Your task to perform on an android device: What is the recent news? Image 0: 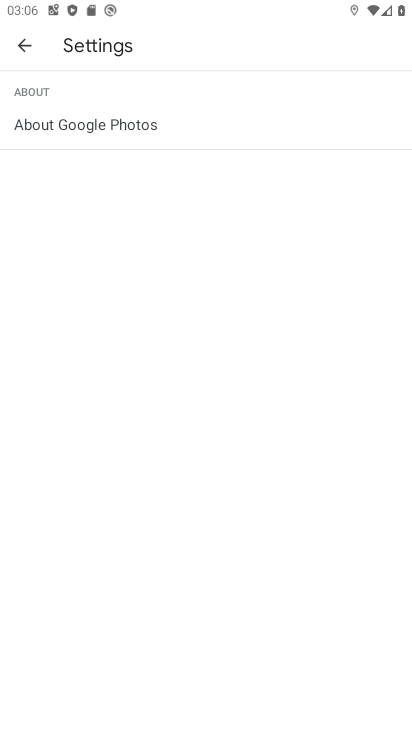
Step 0: drag from (247, 672) to (188, 331)
Your task to perform on an android device: What is the recent news? Image 1: 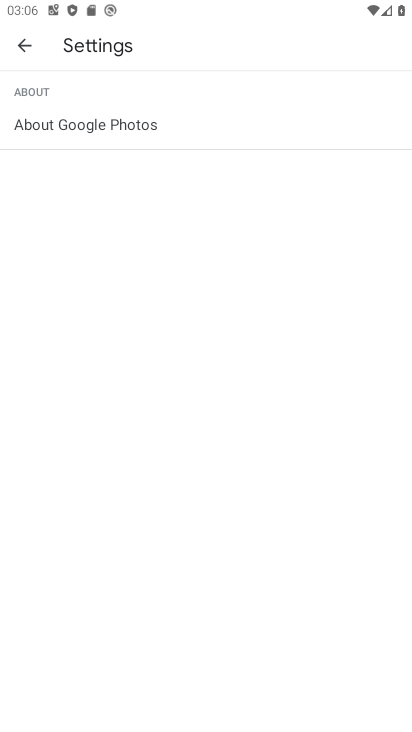
Step 1: click (25, 49)
Your task to perform on an android device: What is the recent news? Image 2: 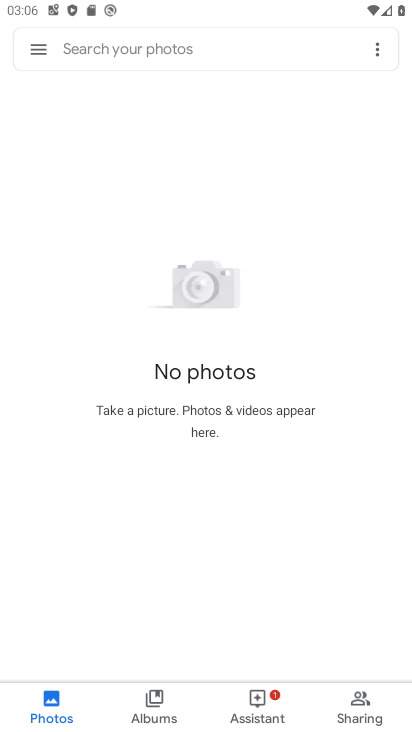
Step 2: press back button
Your task to perform on an android device: What is the recent news? Image 3: 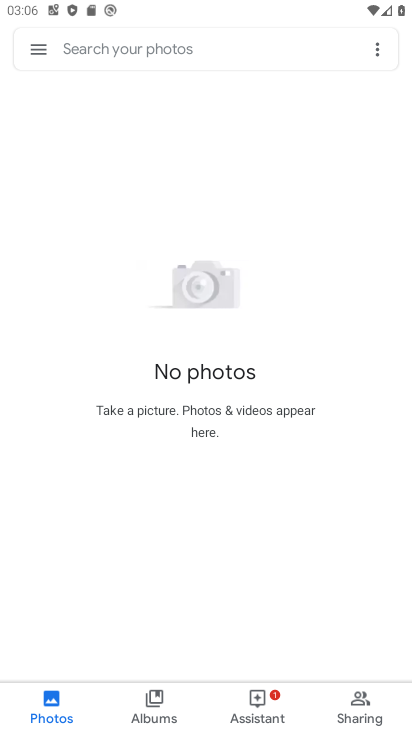
Step 3: press back button
Your task to perform on an android device: What is the recent news? Image 4: 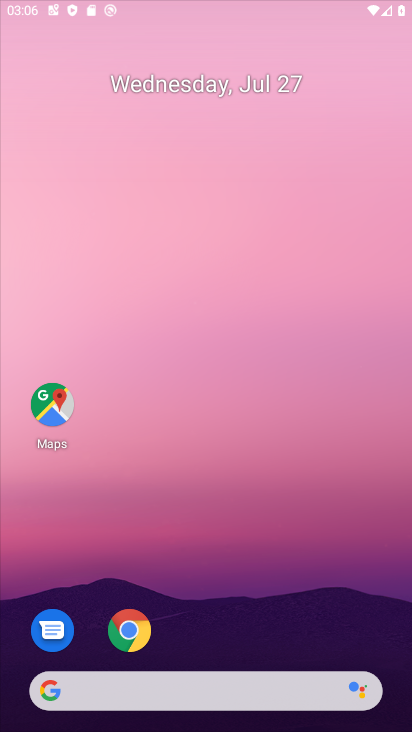
Step 4: press back button
Your task to perform on an android device: What is the recent news? Image 5: 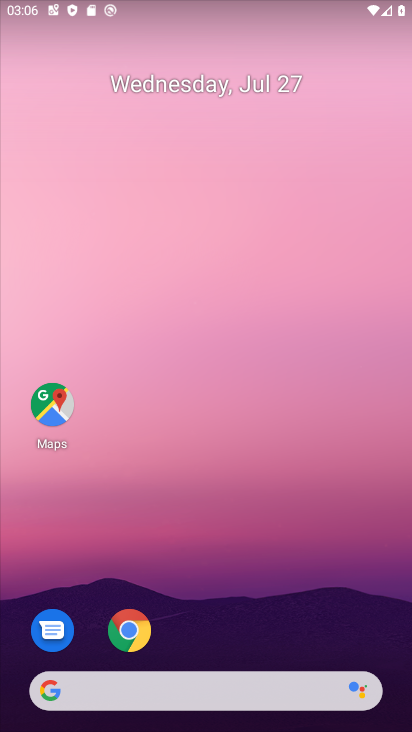
Step 5: click (80, 253)
Your task to perform on an android device: What is the recent news? Image 6: 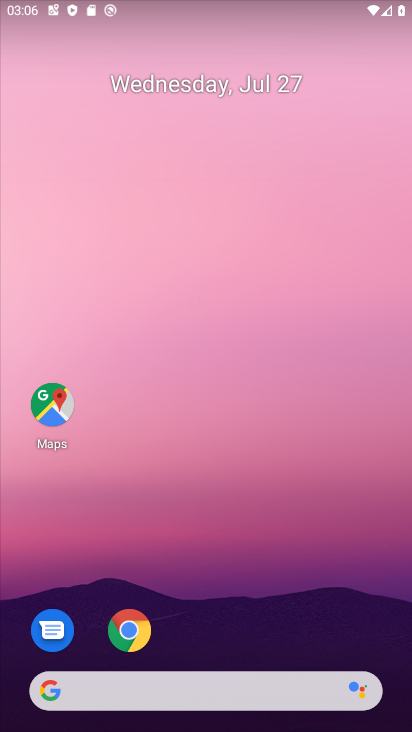
Step 6: drag from (227, 588) to (164, 175)
Your task to perform on an android device: What is the recent news? Image 7: 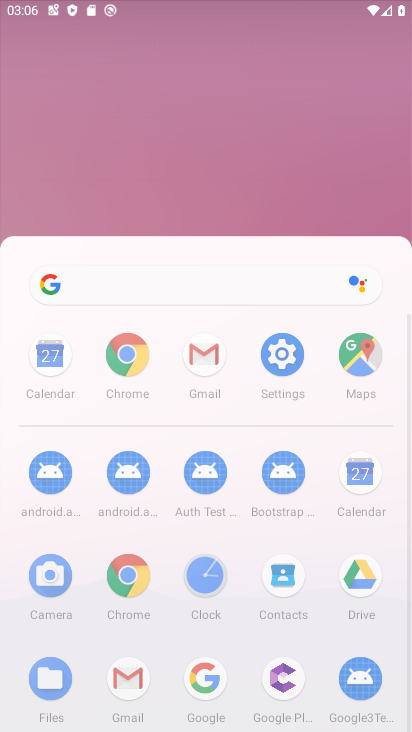
Step 7: drag from (242, 552) to (210, 255)
Your task to perform on an android device: What is the recent news? Image 8: 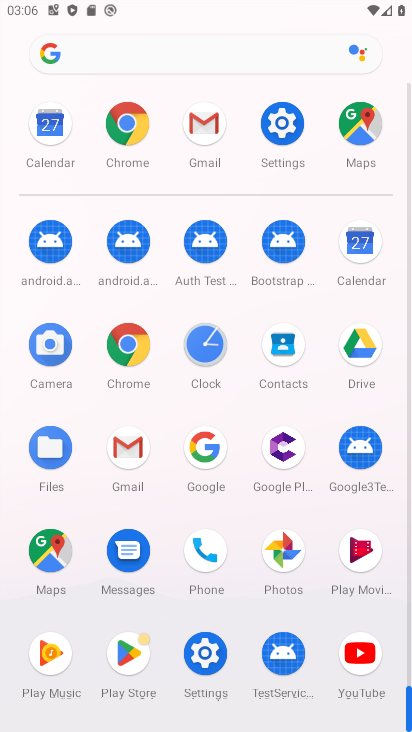
Step 8: drag from (243, 490) to (201, 133)
Your task to perform on an android device: What is the recent news? Image 9: 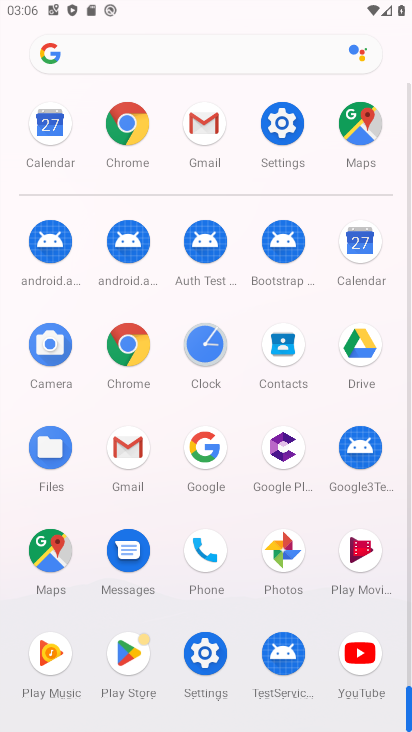
Step 9: click (118, 139)
Your task to perform on an android device: What is the recent news? Image 10: 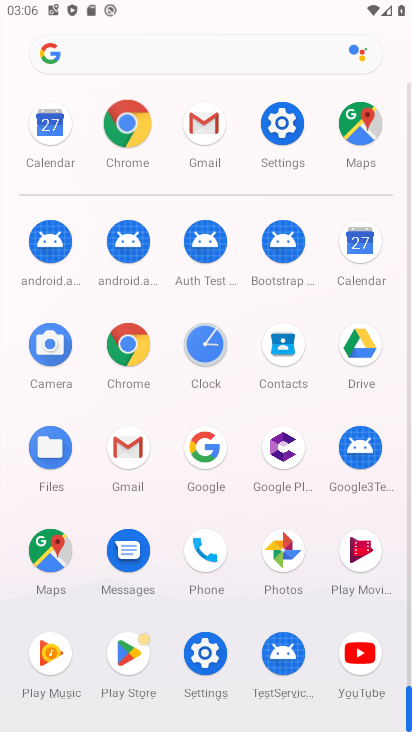
Step 10: click (122, 136)
Your task to perform on an android device: What is the recent news? Image 11: 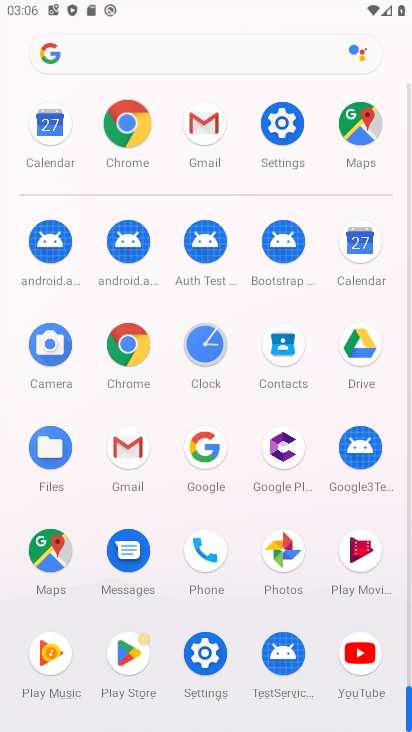
Step 11: click (135, 129)
Your task to perform on an android device: What is the recent news? Image 12: 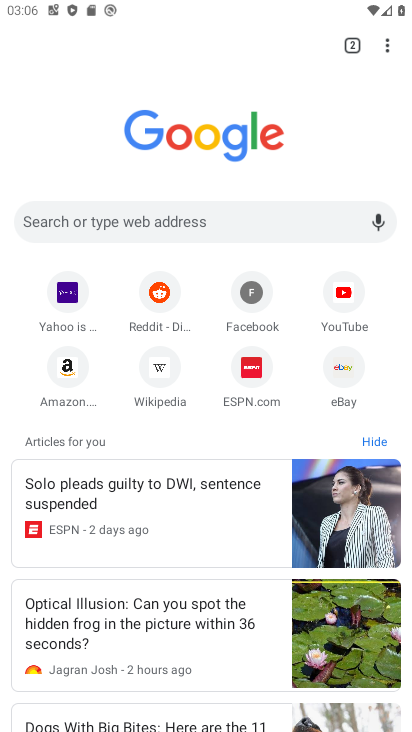
Step 12: task complete